Your task to perform on an android device: turn on translation in the chrome app Image 0: 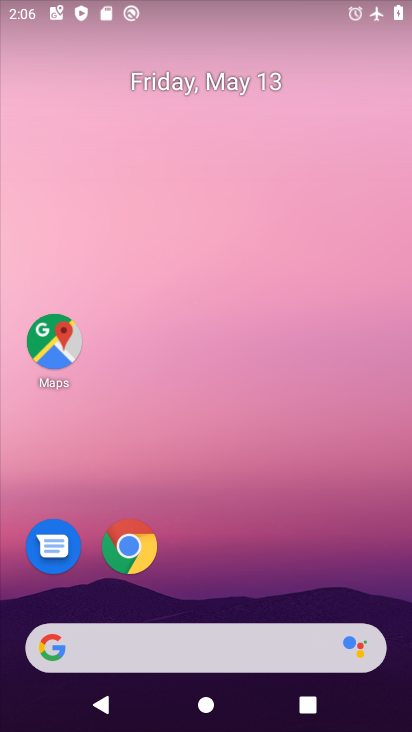
Step 0: click (129, 545)
Your task to perform on an android device: turn on translation in the chrome app Image 1: 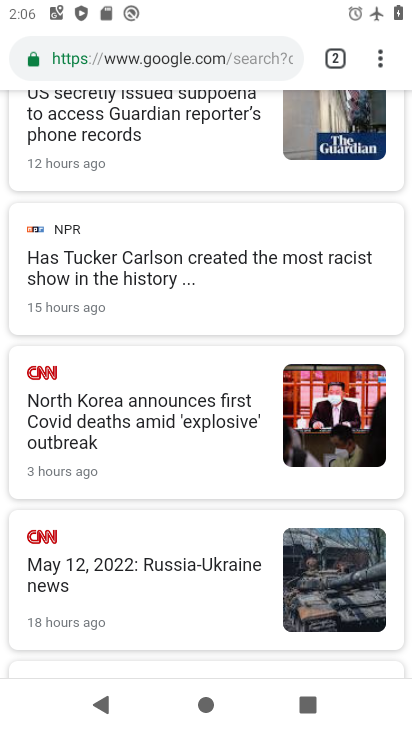
Step 1: drag from (382, 55) to (386, 243)
Your task to perform on an android device: turn on translation in the chrome app Image 2: 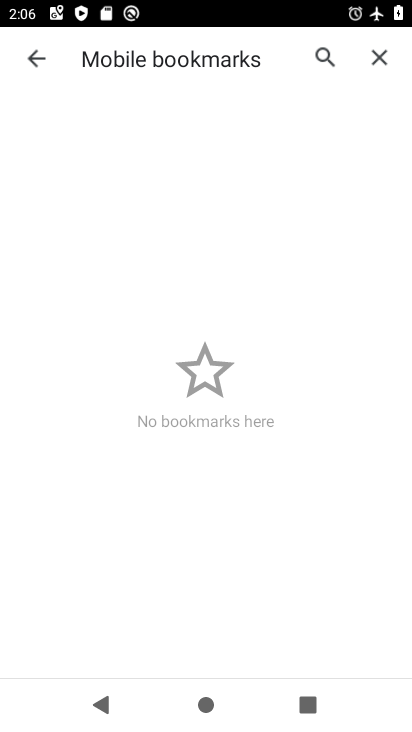
Step 2: click (377, 53)
Your task to perform on an android device: turn on translation in the chrome app Image 3: 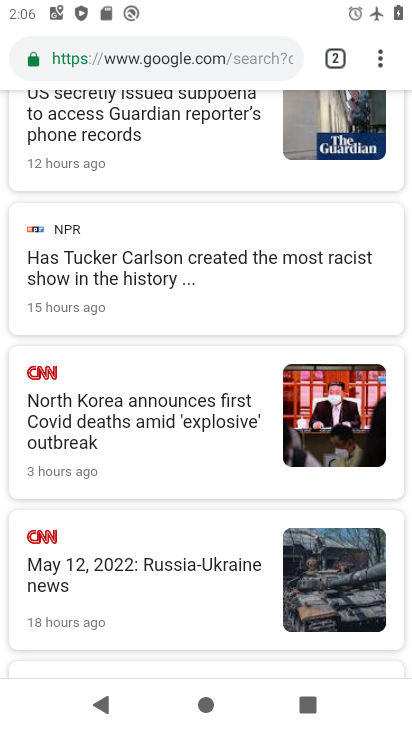
Step 3: drag from (379, 49) to (203, 577)
Your task to perform on an android device: turn on translation in the chrome app Image 4: 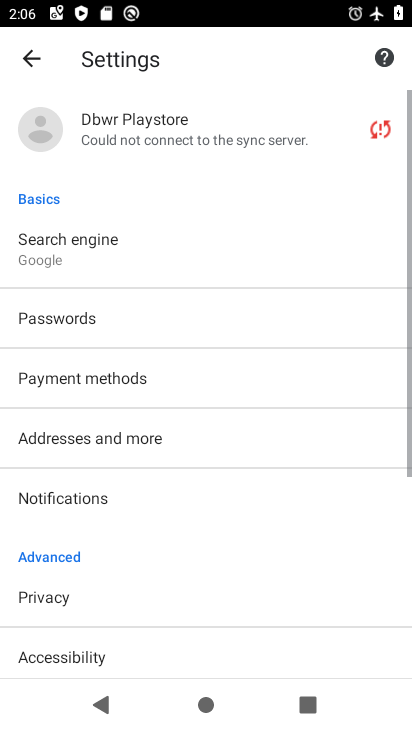
Step 4: drag from (81, 427) to (236, 115)
Your task to perform on an android device: turn on translation in the chrome app Image 5: 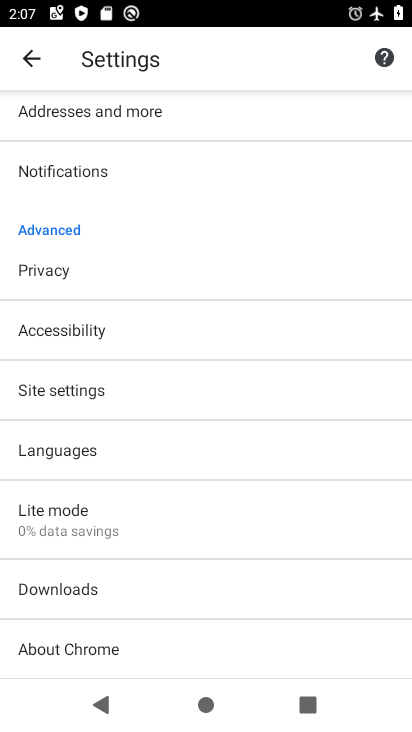
Step 5: click (80, 524)
Your task to perform on an android device: turn on translation in the chrome app Image 6: 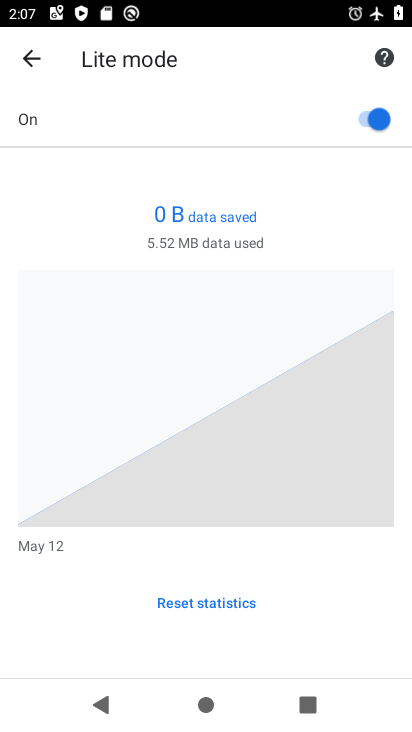
Step 6: click (33, 59)
Your task to perform on an android device: turn on translation in the chrome app Image 7: 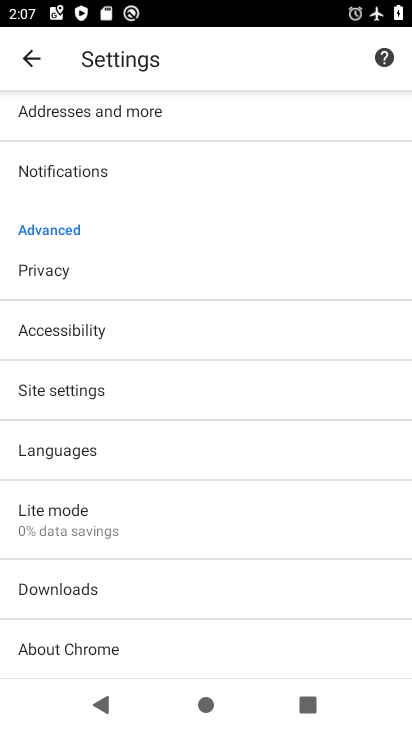
Step 7: click (118, 454)
Your task to perform on an android device: turn on translation in the chrome app Image 8: 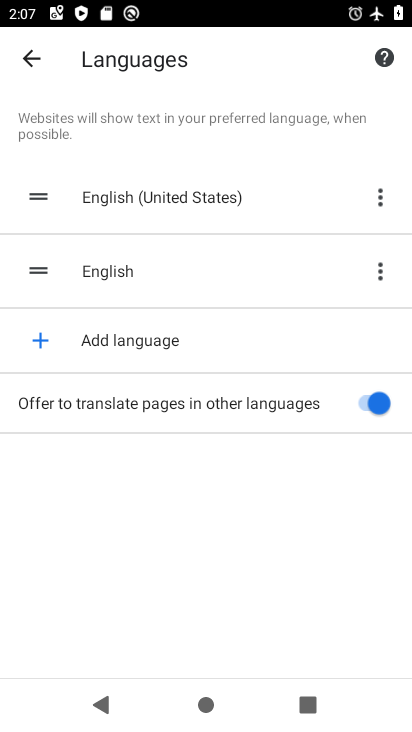
Step 8: task complete